Your task to perform on an android device: Add usb-c to usb-b to the cart on newegg Image 0: 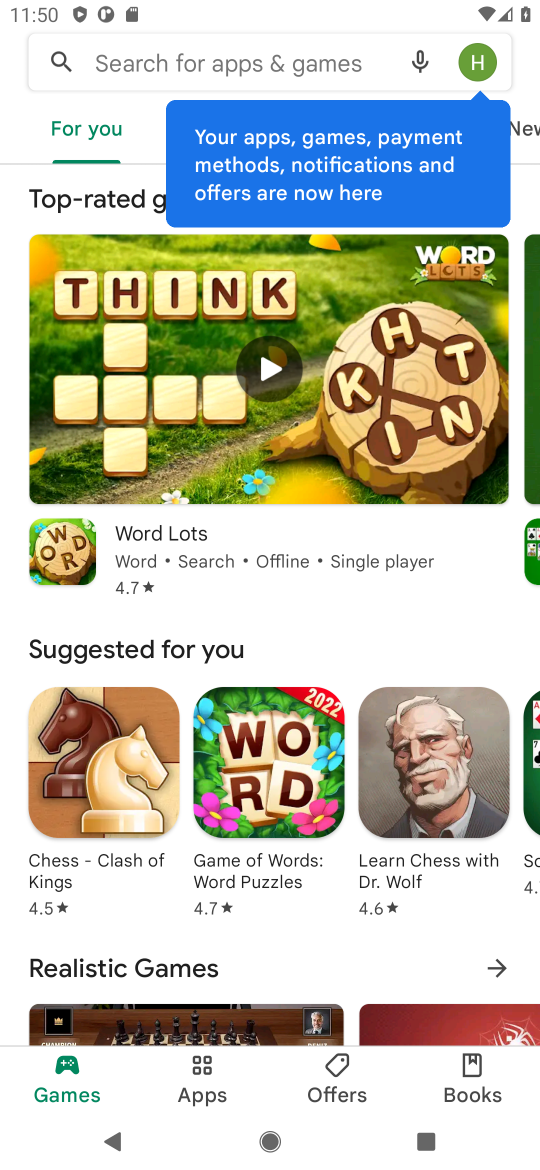
Step 0: press home button
Your task to perform on an android device: Add usb-c to usb-b to the cart on newegg Image 1: 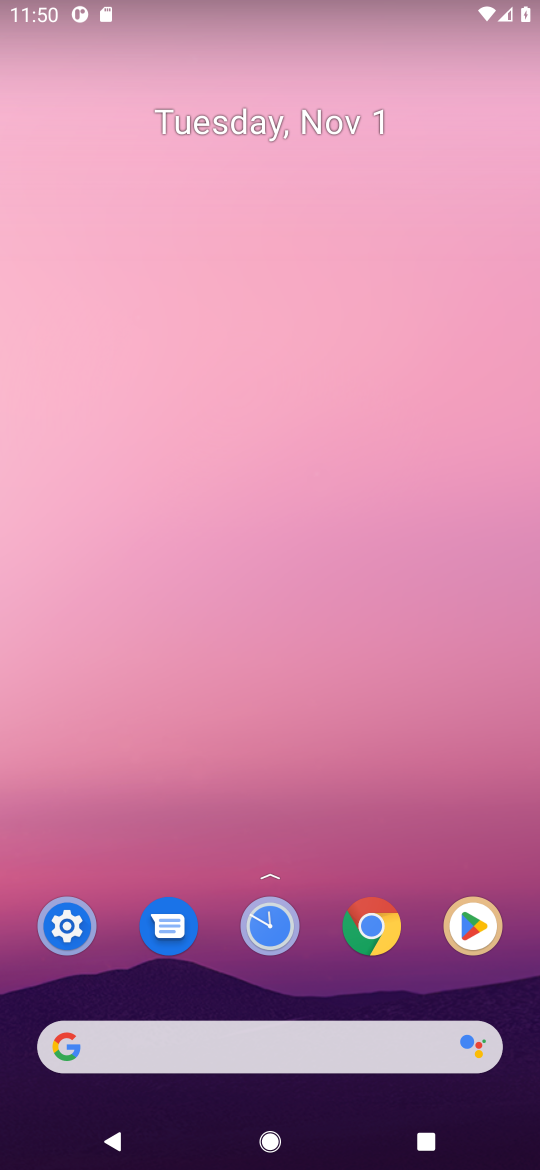
Step 1: click (369, 930)
Your task to perform on an android device: Add usb-c to usb-b to the cart on newegg Image 2: 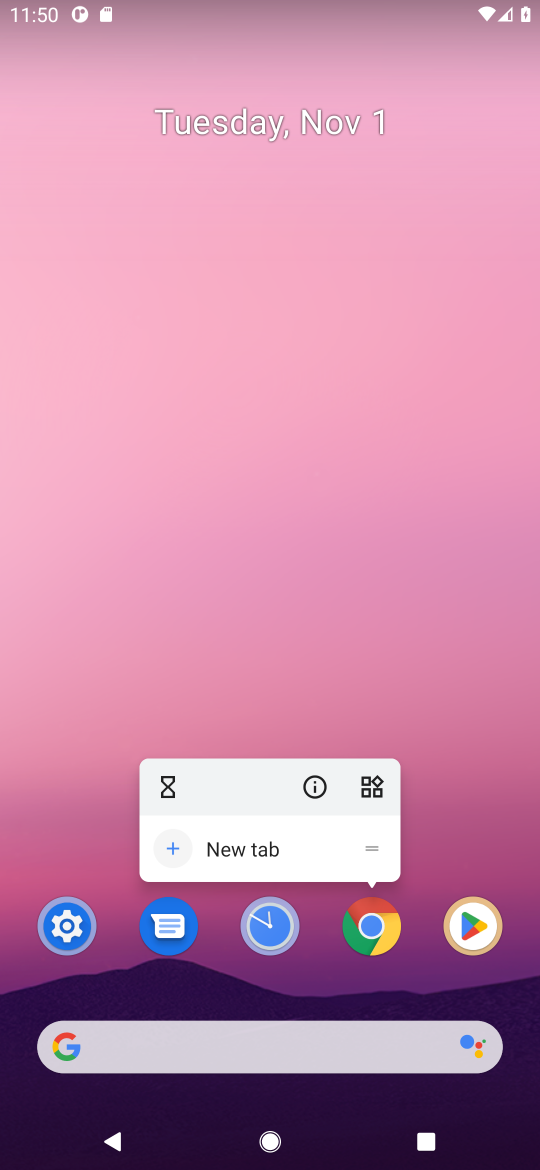
Step 2: click (369, 930)
Your task to perform on an android device: Add usb-c to usb-b to the cart on newegg Image 3: 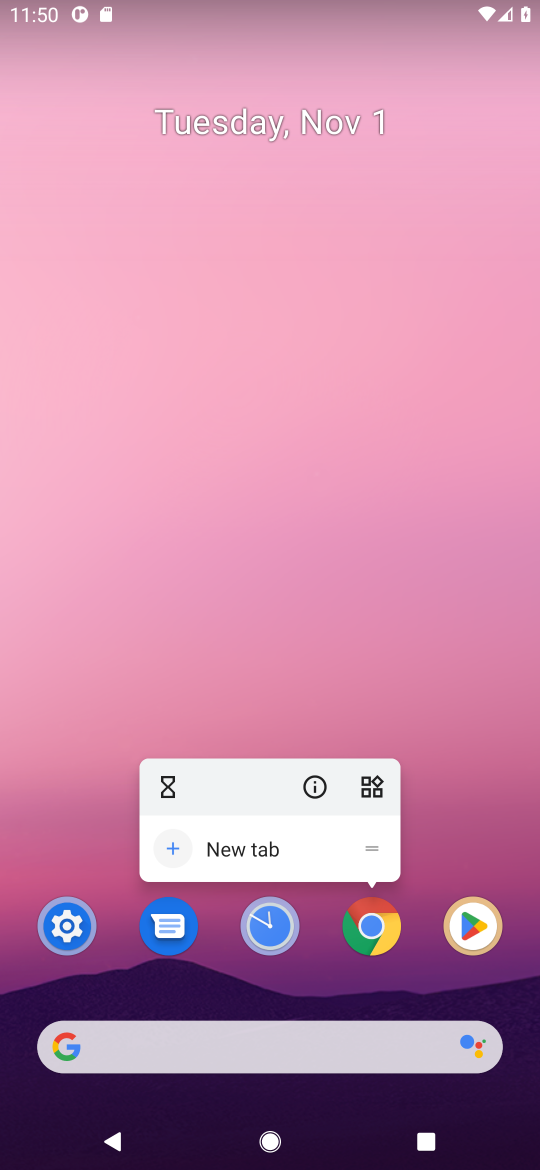
Step 3: click (392, 911)
Your task to perform on an android device: Add usb-c to usb-b to the cart on newegg Image 4: 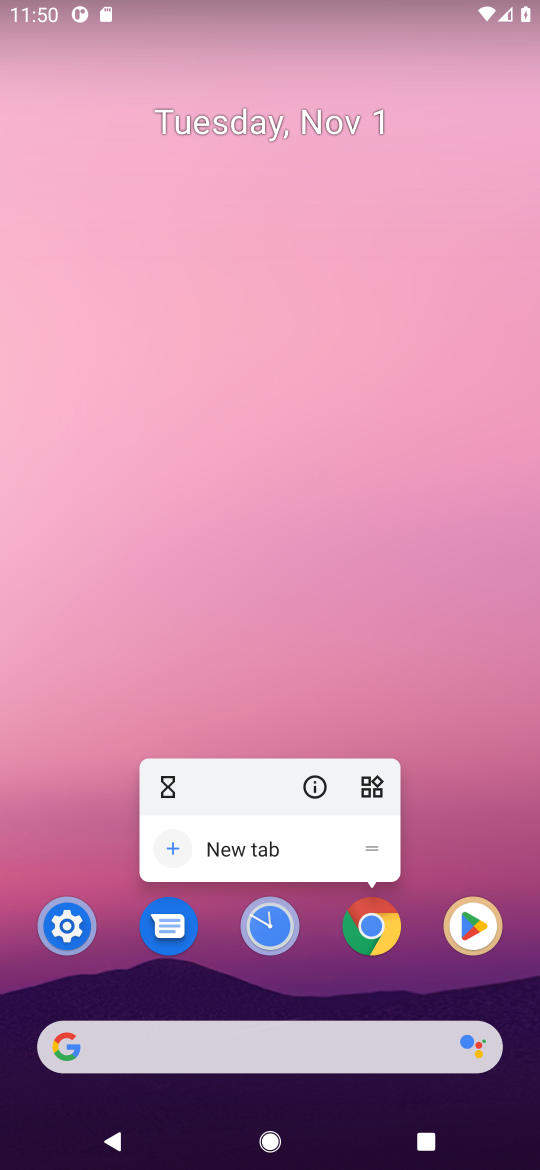
Step 4: click (374, 921)
Your task to perform on an android device: Add usb-c to usb-b to the cart on newegg Image 5: 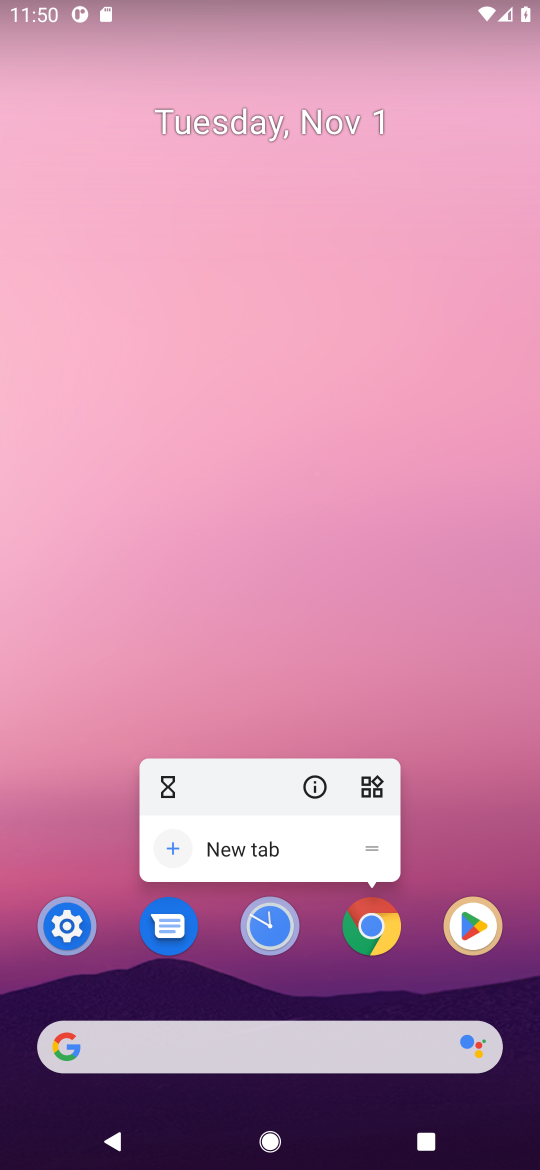
Step 5: click (384, 903)
Your task to perform on an android device: Add usb-c to usb-b to the cart on newegg Image 6: 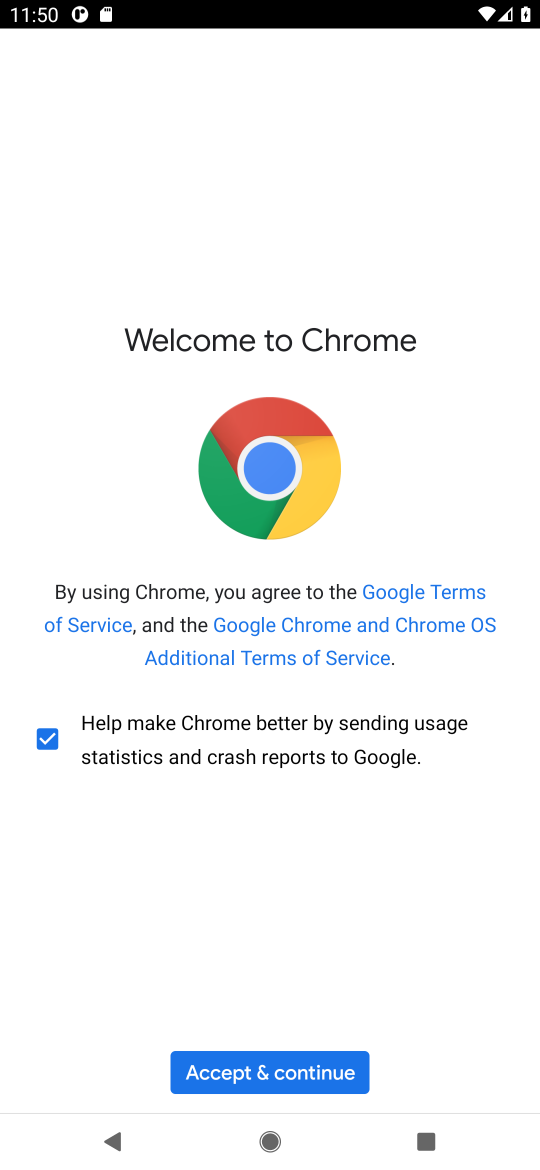
Step 6: click (299, 1065)
Your task to perform on an android device: Add usb-c to usb-b to the cart on newegg Image 7: 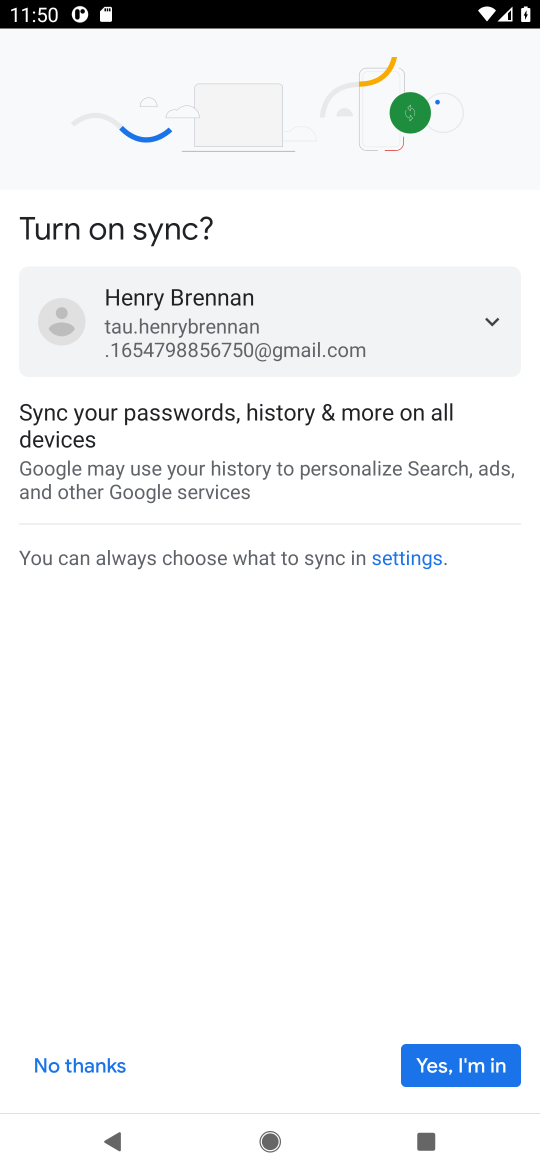
Step 7: click (437, 1063)
Your task to perform on an android device: Add usb-c to usb-b to the cart on newegg Image 8: 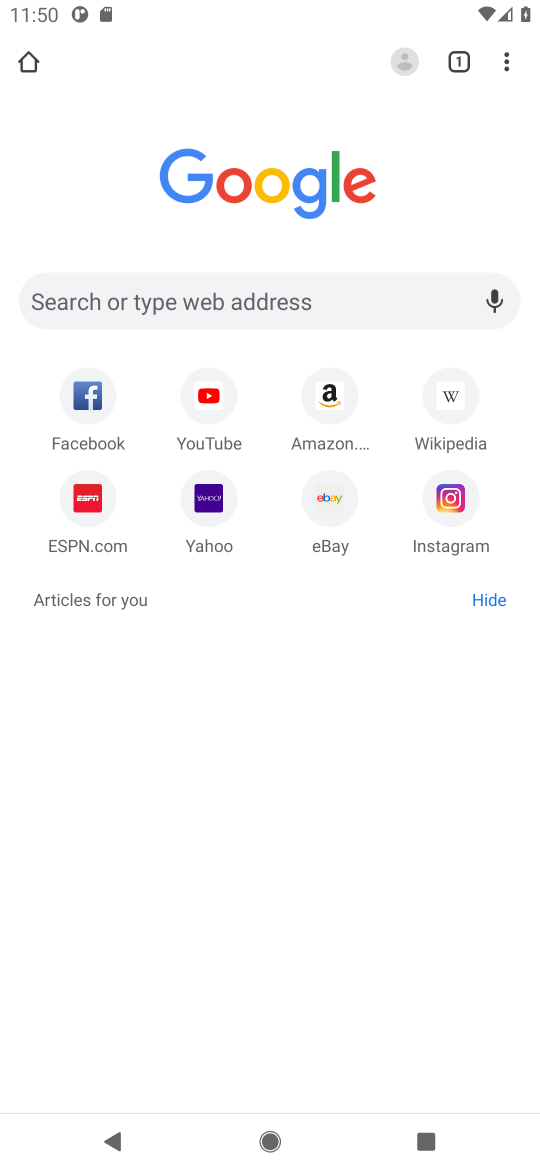
Step 8: click (288, 302)
Your task to perform on an android device: Add usb-c to usb-b to the cart on newegg Image 9: 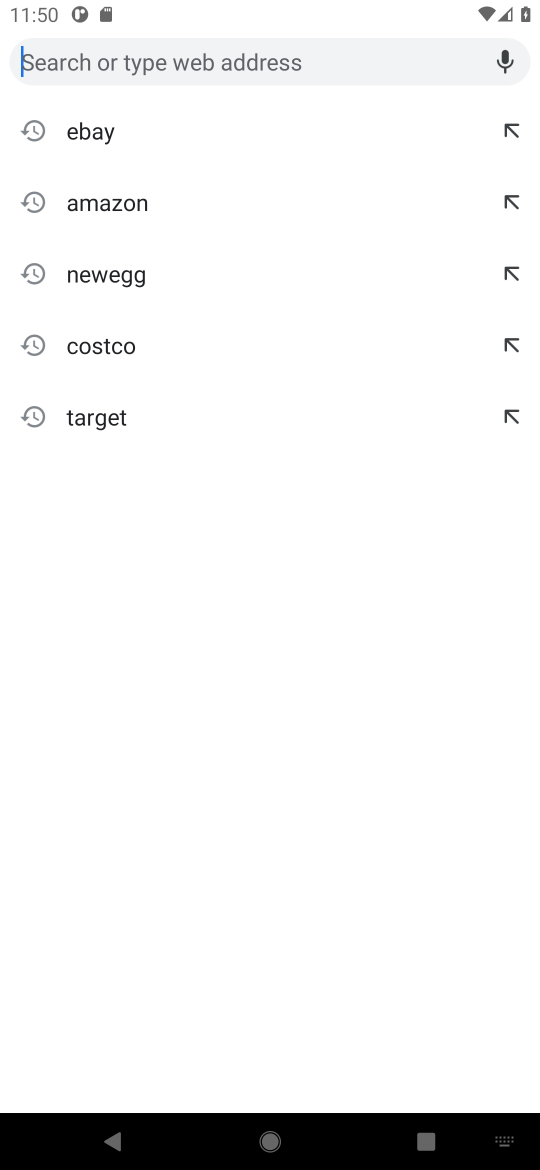
Step 9: click (101, 278)
Your task to perform on an android device: Add usb-c to usb-b to the cart on newegg Image 10: 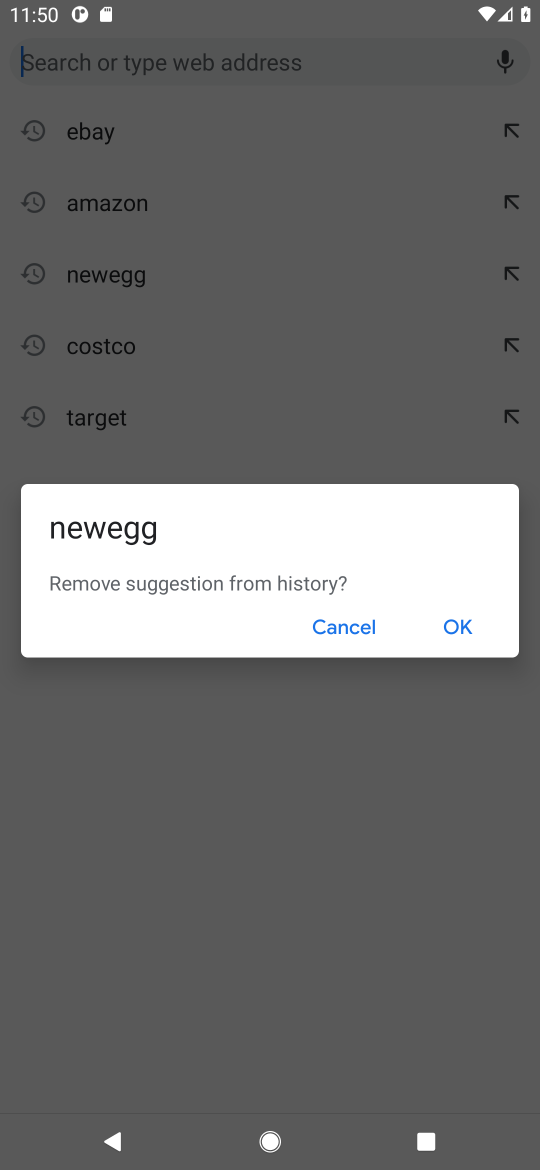
Step 10: click (340, 640)
Your task to perform on an android device: Add usb-c to usb-b to the cart on newegg Image 11: 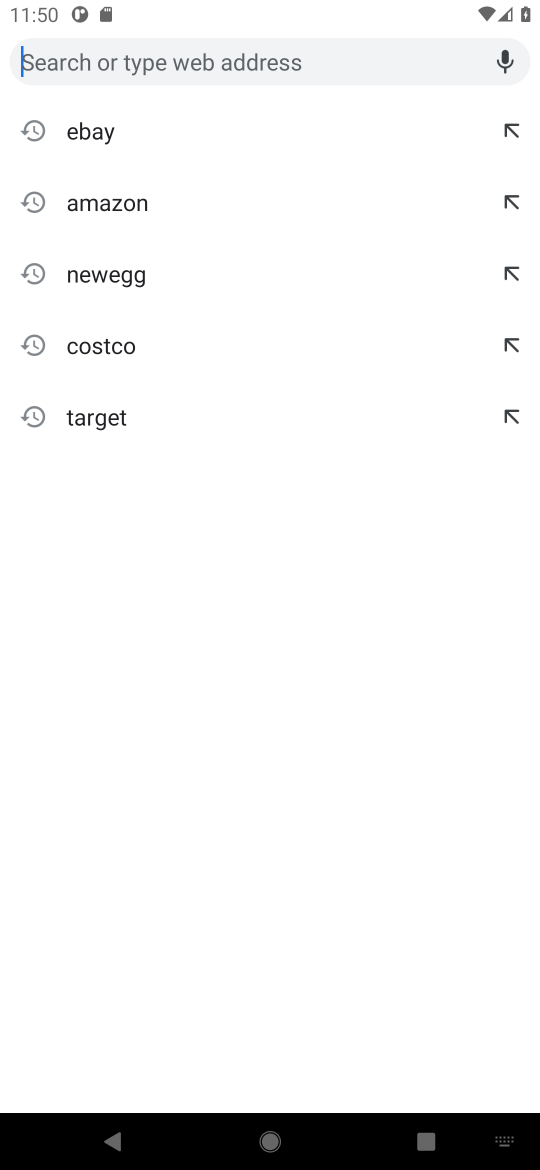
Step 11: click (76, 272)
Your task to perform on an android device: Add usb-c to usb-b to the cart on newegg Image 12: 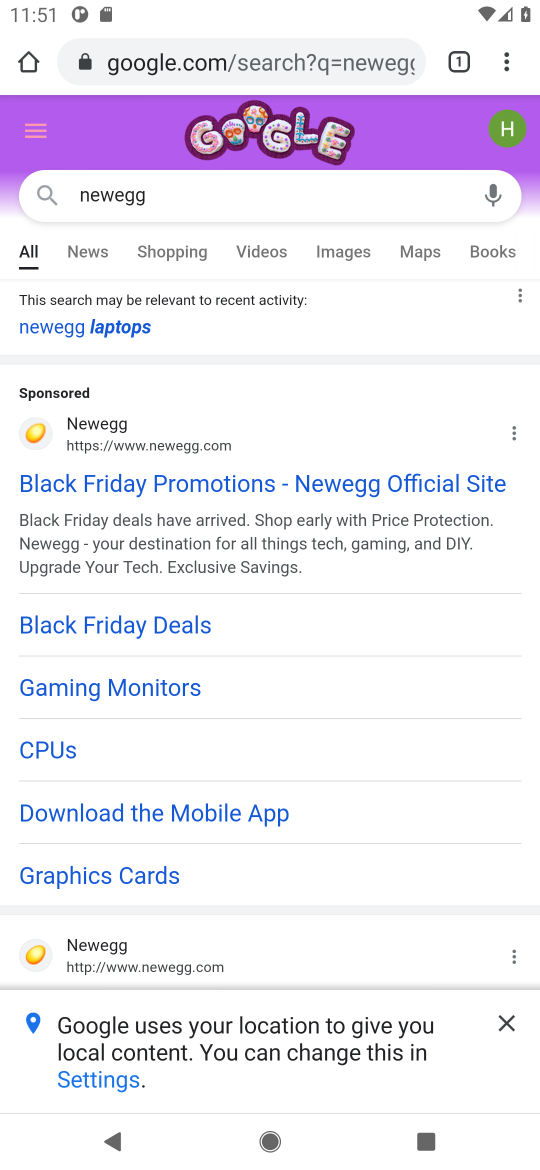
Step 12: click (175, 489)
Your task to perform on an android device: Add usb-c to usb-b to the cart on newegg Image 13: 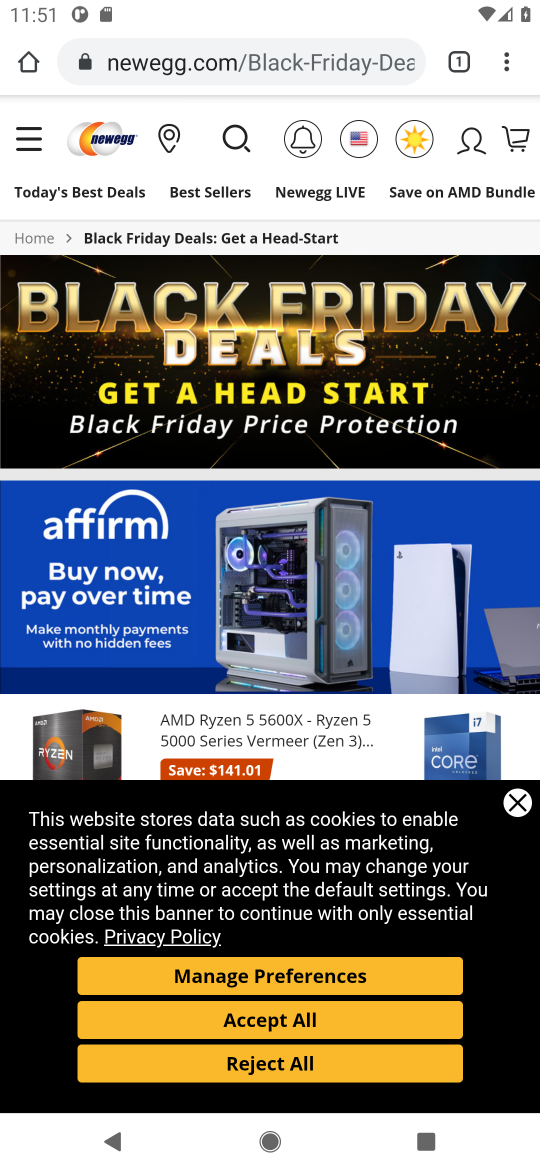
Step 13: click (285, 132)
Your task to perform on an android device: Add usb-c to usb-b to the cart on newegg Image 14: 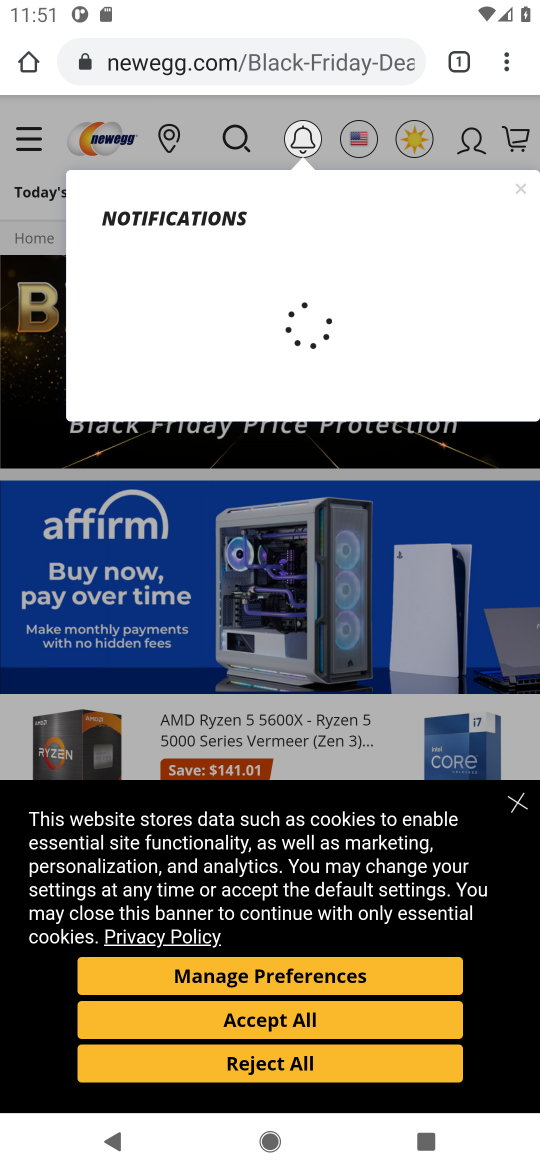
Step 14: click (245, 131)
Your task to perform on an android device: Add usb-c to usb-b to the cart on newegg Image 15: 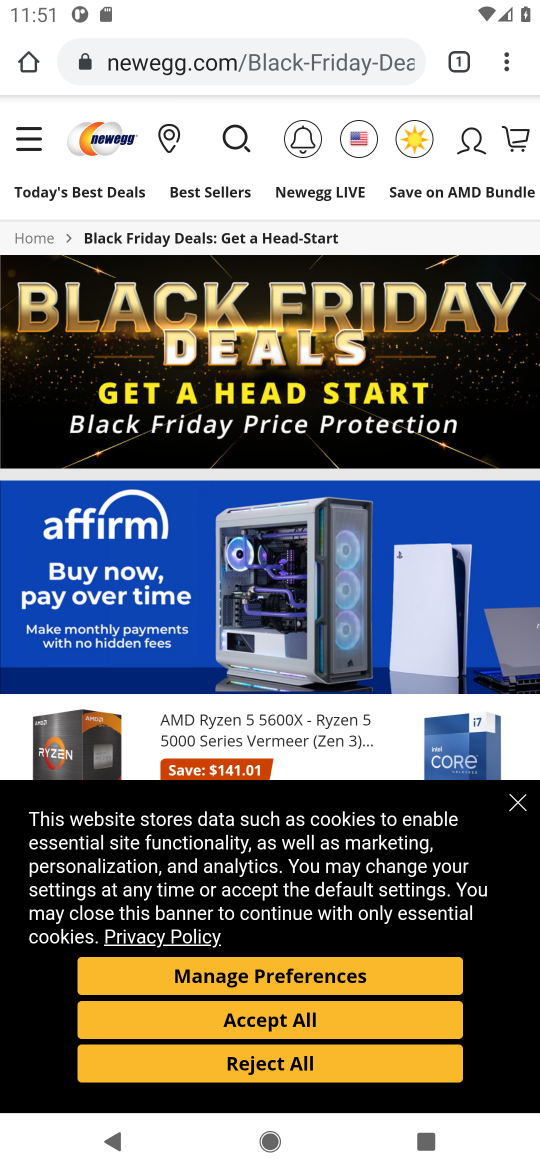
Step 15: click (227, 138)
Your task to perform on an android device: Add usb-c to usb-b to the cart on newegg Image 16: 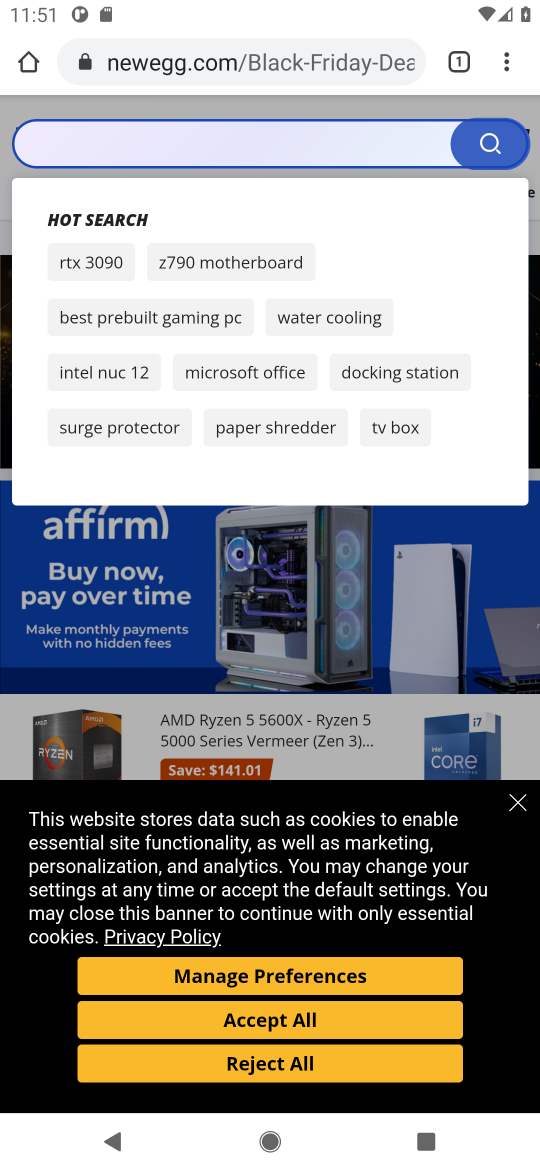
Step 16: type "usb-c to usb-b "
Your task to perform on an android device: Add usb-c to usb-b to the cart on newegg Image 17: 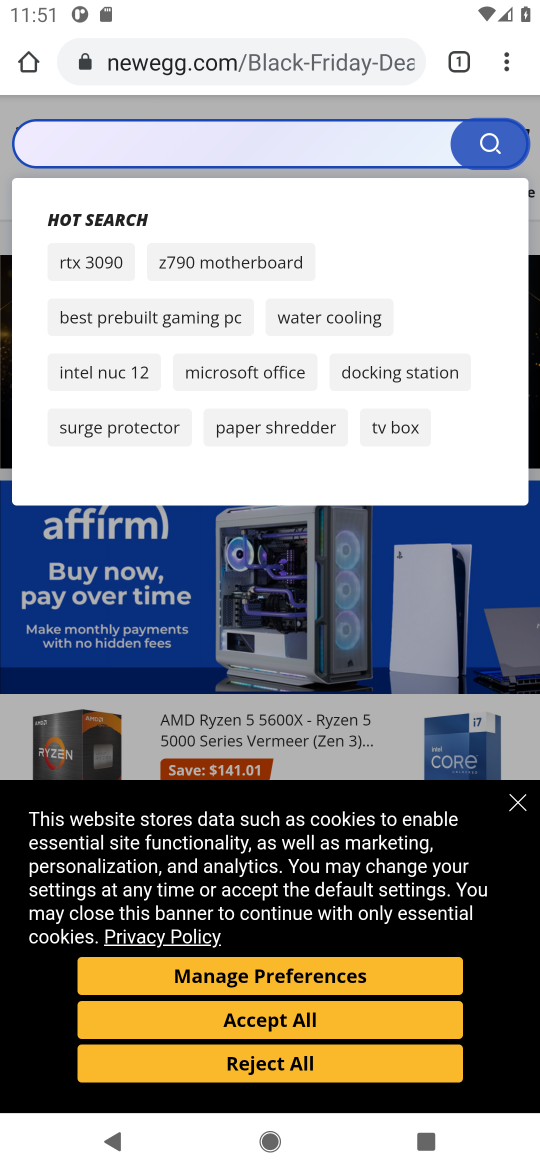
Step 17: press enter
Your task to perform on an android device: Add usb-c to usb-b to the cart on newegg Image 18: 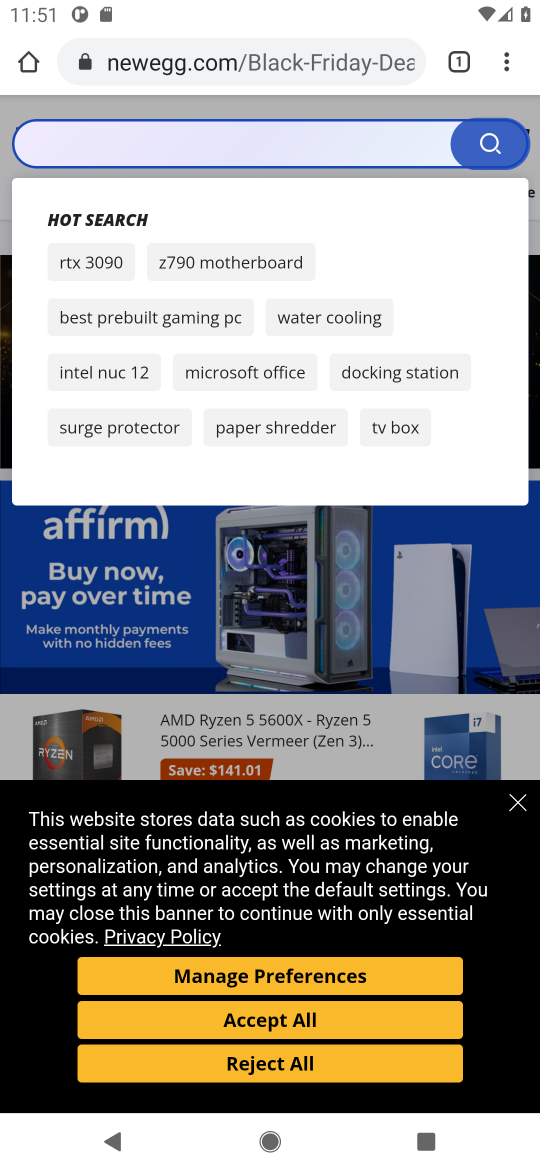
Step 18: click (521, 803)
Your task to perform on an android device: Add usb-c to usb-b to the cart on newegg Image 19: 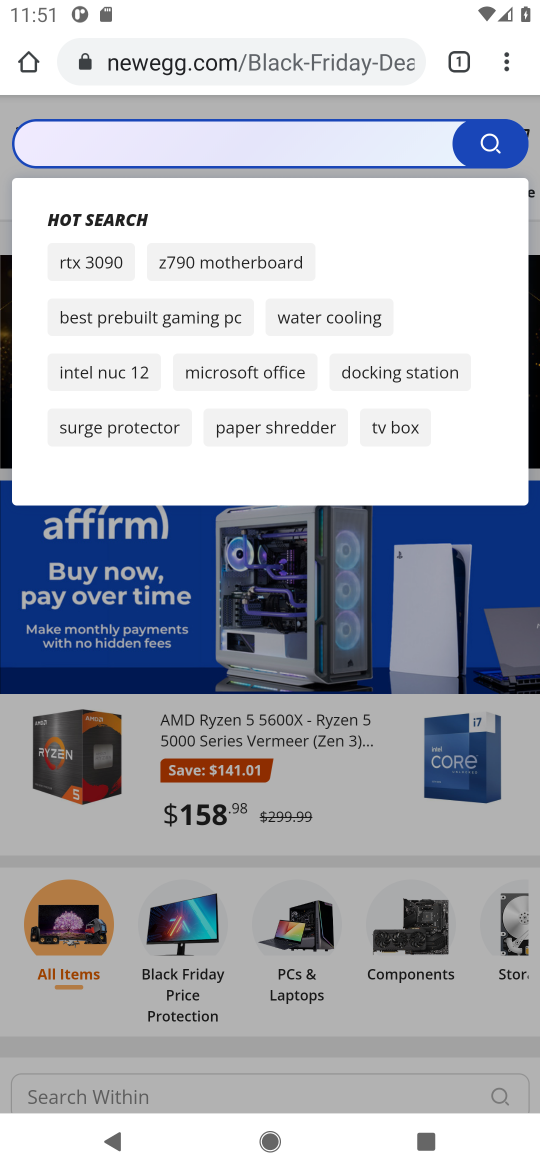
Step 19: drag from (341, 837) to (357, 728)
Your task to perform on an android device: Add usb-c to usb-b to the cart on newegg Image 20: 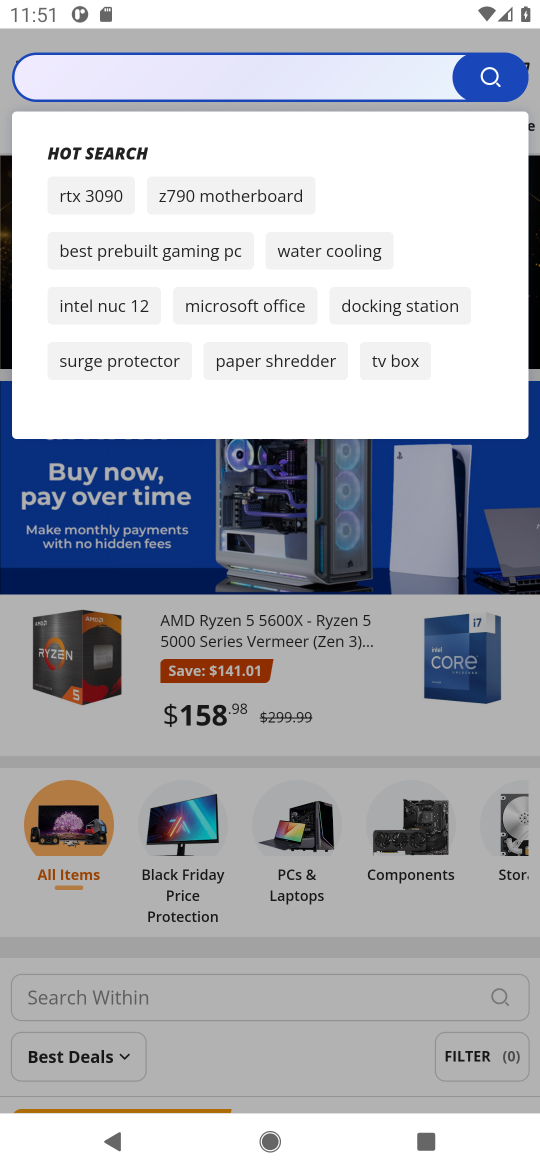
Step 20: click (221, 70)
Your task to perform on an android device: Add usb-c to usb-b to the cart on newegg Image 21: 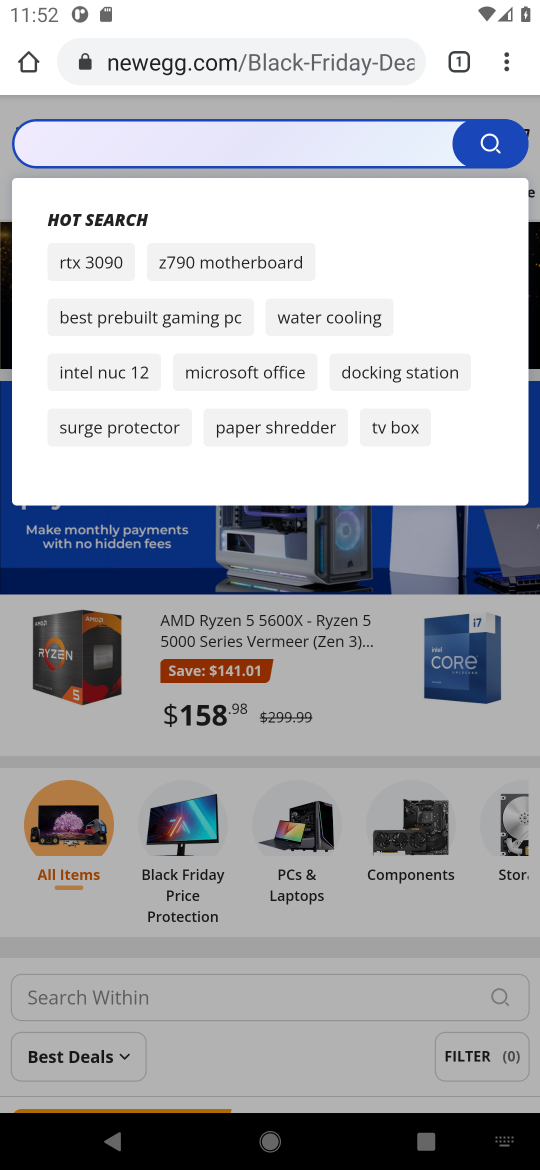
Step 21: type "usb-c to usb-b"
Your task to perform on an android device: Add usb-c to usb-b to the cart on newegg Image 22: 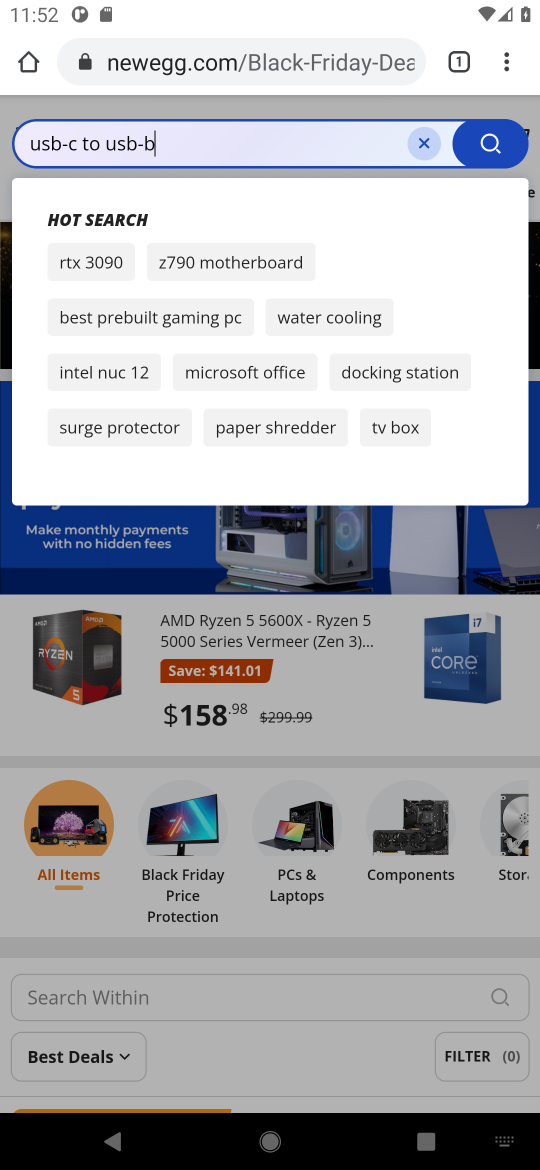
Step 22: press enter
Your task to perform on an android device: Add usb-c to usb-b to the cart on newegg Image 23: 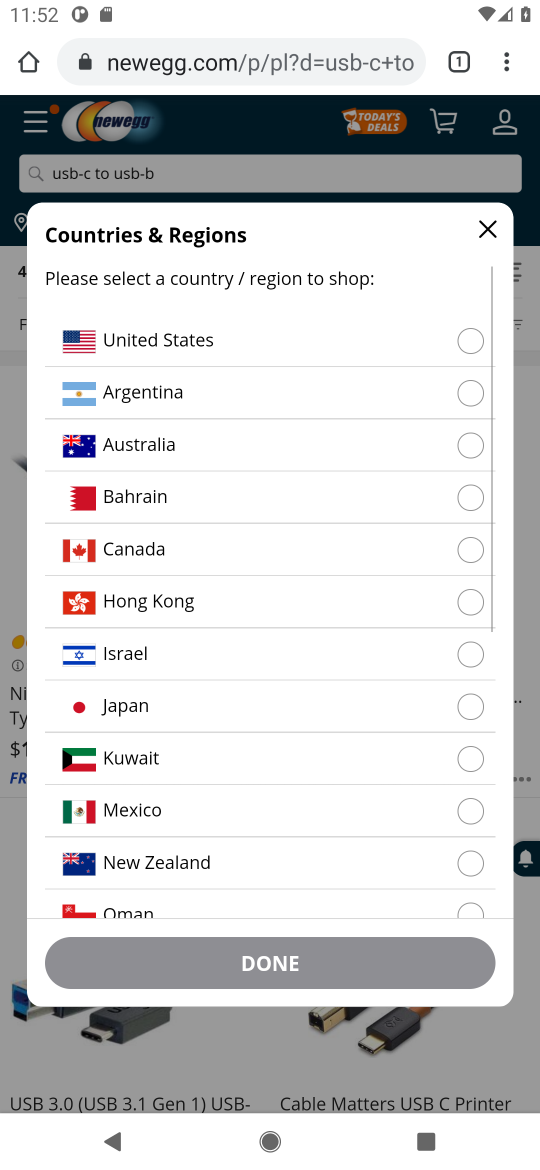
Step 23: click (481, 222)
Your task to perform on an android device: Add usb-c to usb-b to the cart on newegg Image 24: 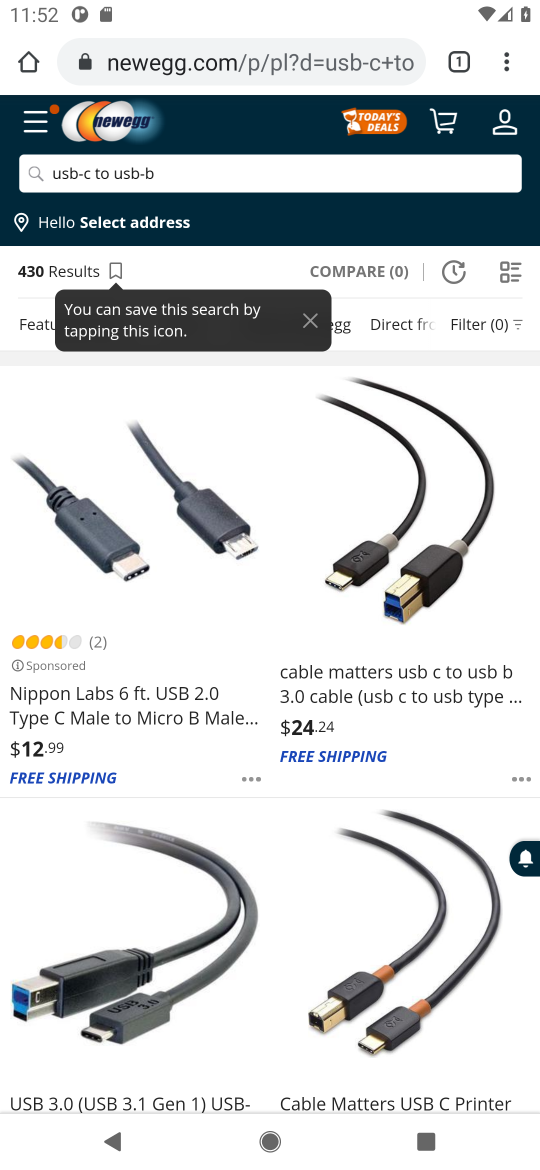
Step 24: click (400, 688)
Your task to perform on an android device: Add usb-c to usb-b to the cart on newegg Image 25: 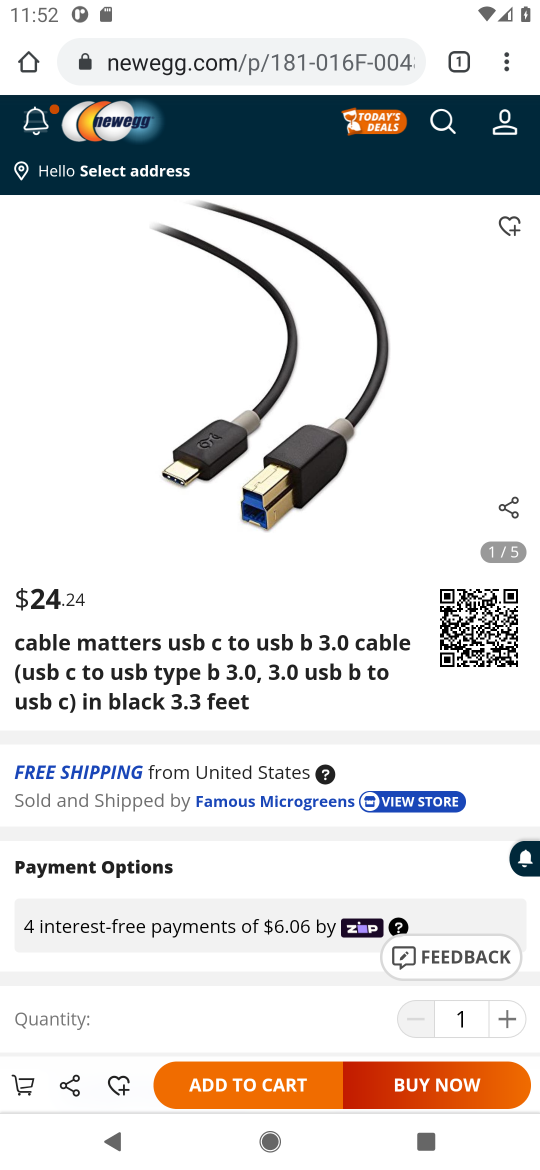
Step 25: click (258, 1084)
Your task to perform on an android device: Add usb-c to usb-b to the cart on newegg Image 26: 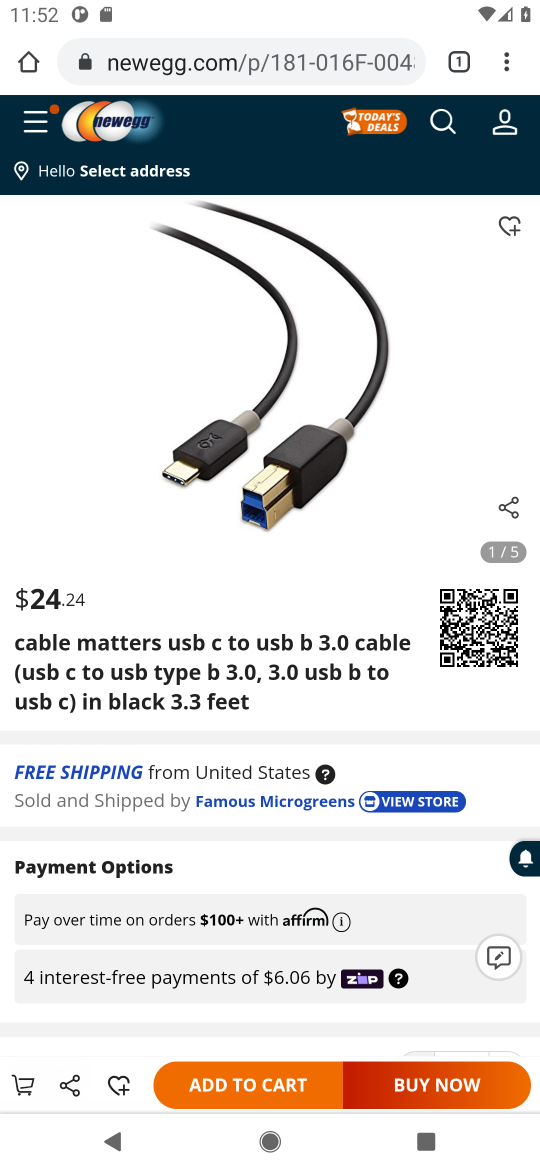
Step 26: click (248, 1089)
Your task to perform on an android device: Add usb-c to usb-b to the cart on newegg Image 27: 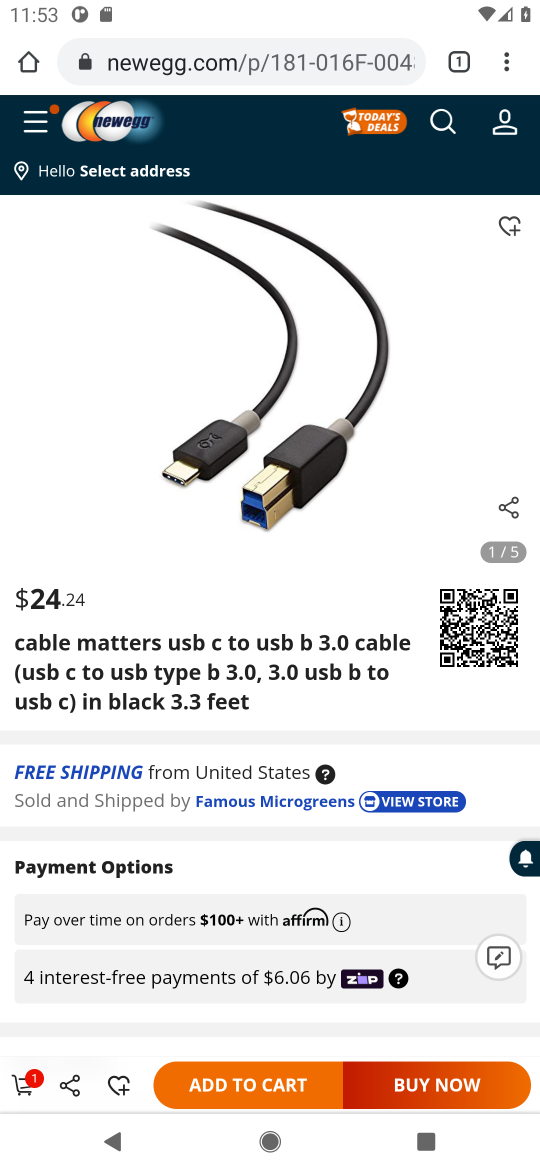
Step 27: task complete